Your task to perform on an android device: Open internet settings Image 0: 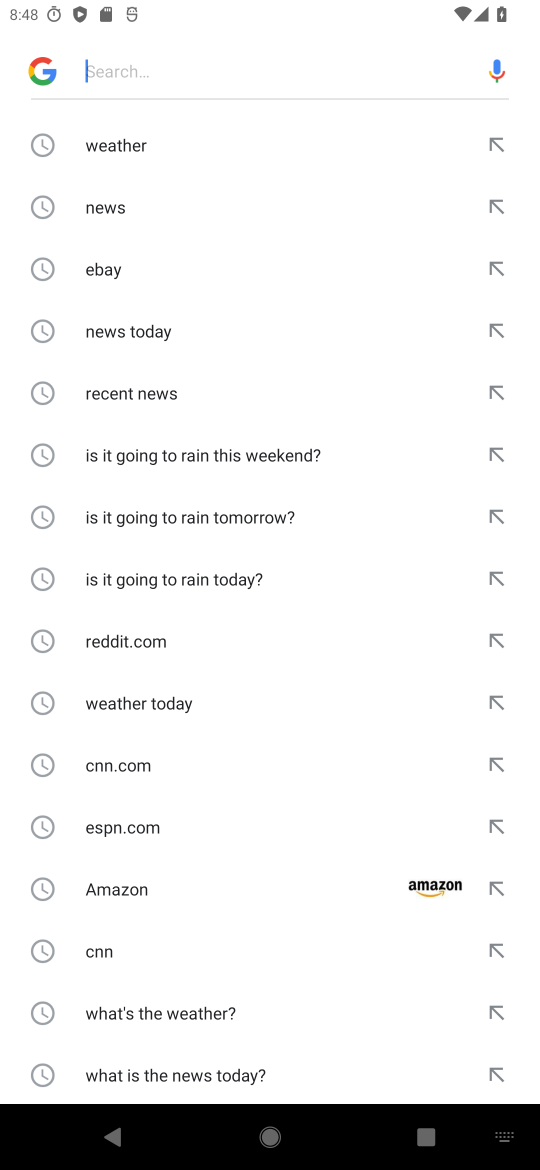
Step 0: press home button
Your task to perform on an android device: Open internet settings Image 1: 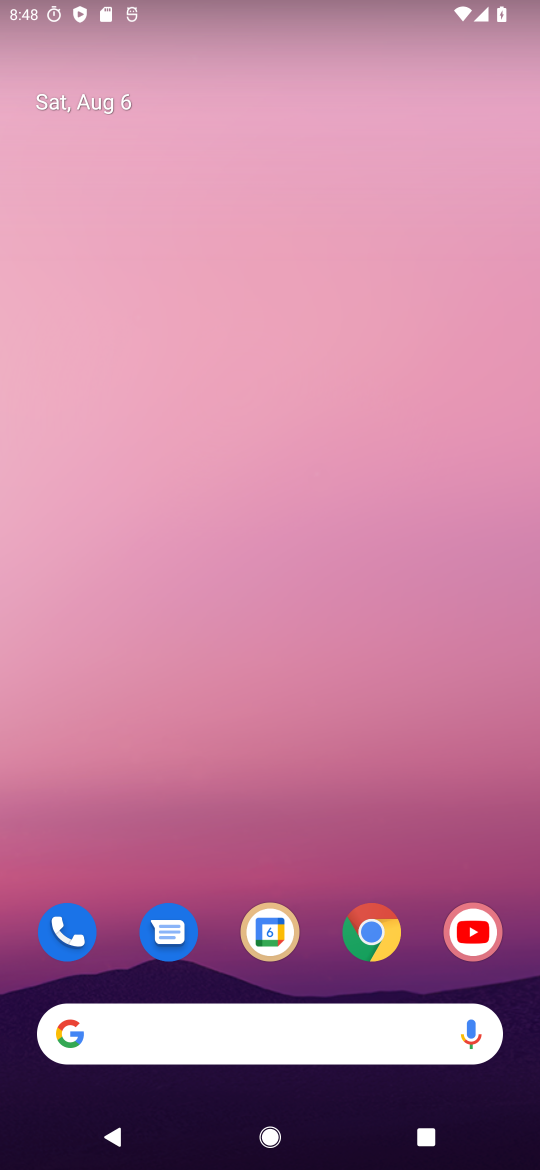
Step 1: drag from (274, 1007) to (508, 180)
Your task to perform on an android device: Open internet settings Image 2: 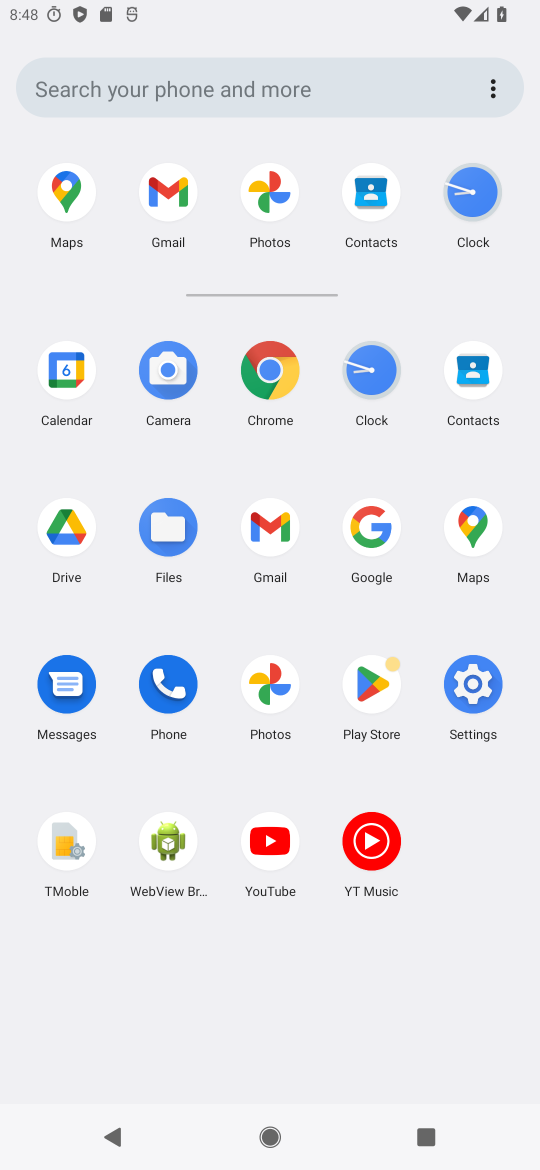
Step 2: click (484, 671)
Your task to perform on an android device: Open internet settings Image 3: 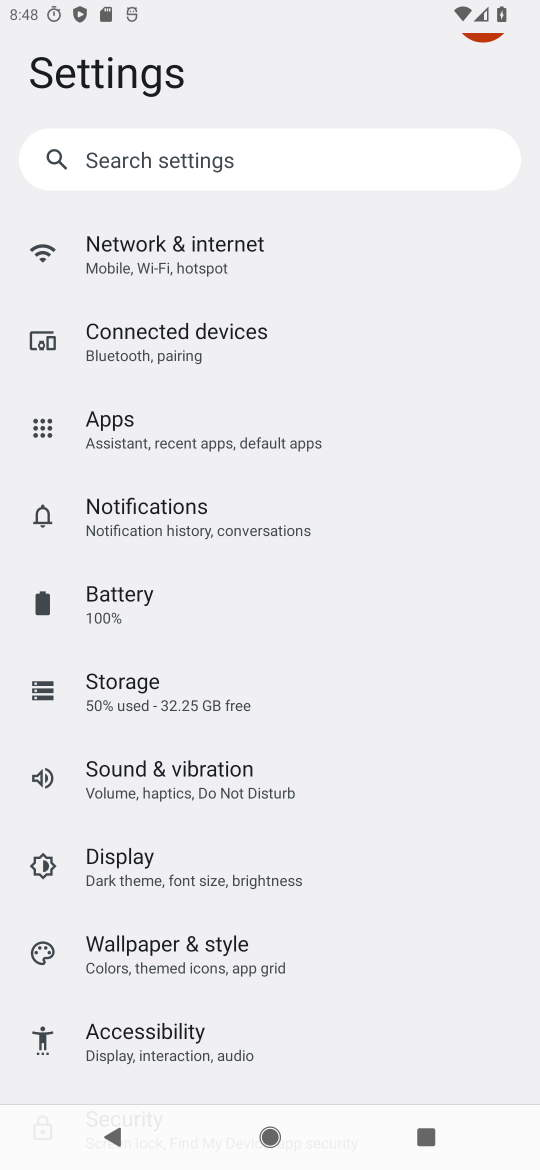
Step 3: click (206, 255)
Your task to perform on an android device: Open internet settings Image 4: 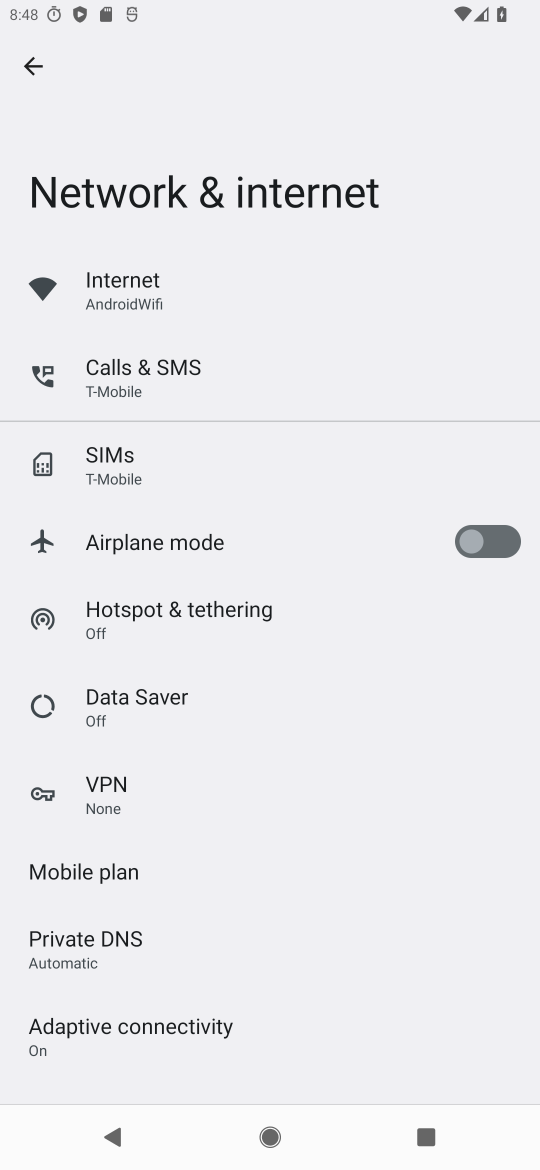
Step 4: task complete